Your task to perform on an android device: open the mobile data screen to see how much data has been used Image 0: 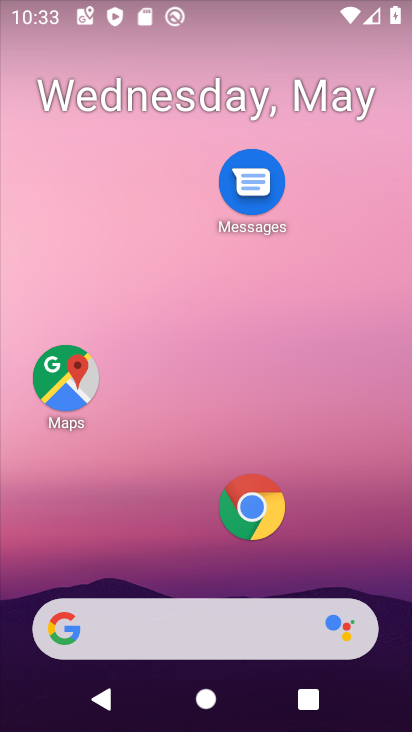
Step 0: press home button
Your task to perform on an android device: open the mobile data screen to see how much data has been used Image 1: 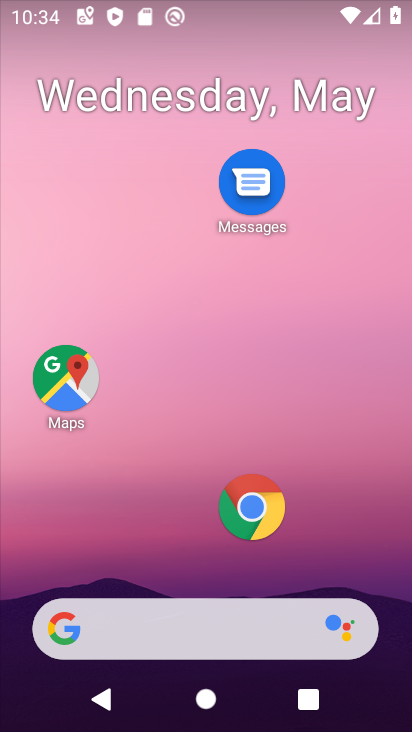
Step 1: drag from (202, 576) to (257, 27)
Your task to perform on an android device: open the mobile data screen to see how much data has been used Image 2: 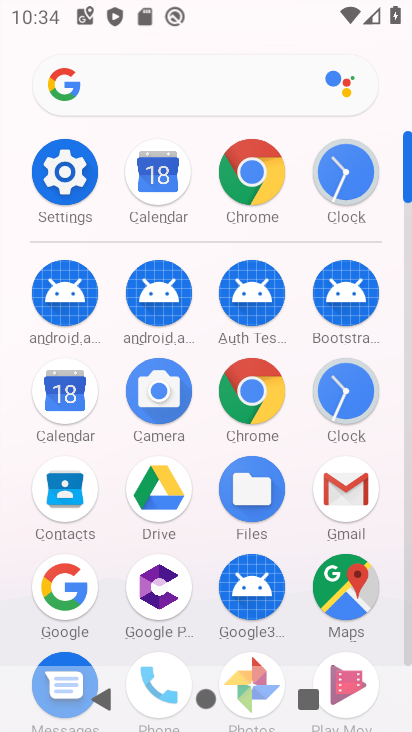
Step 2: click (56, 162)
Your task to perform on an android device: open the mobile data screen to see how much data has been used Image 3: 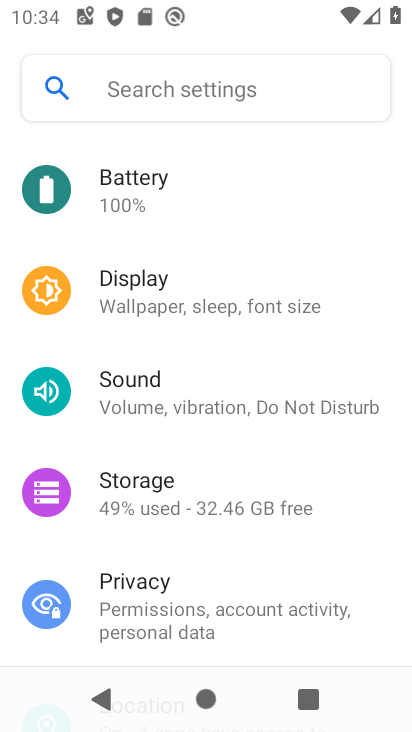
Step 3: drag from (186, 178) to (253, 446)
Your task to perform on an android device: open the mobile data screen to see how much data has been used Image 4: 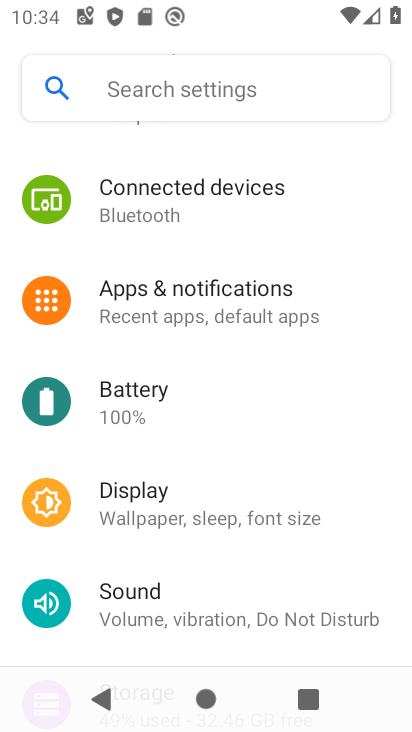
Step 4: drag from (228, 179) to (279, 541)
Your task to perform on an android device: open the mobile data screen to see how much data has been used Image 5: 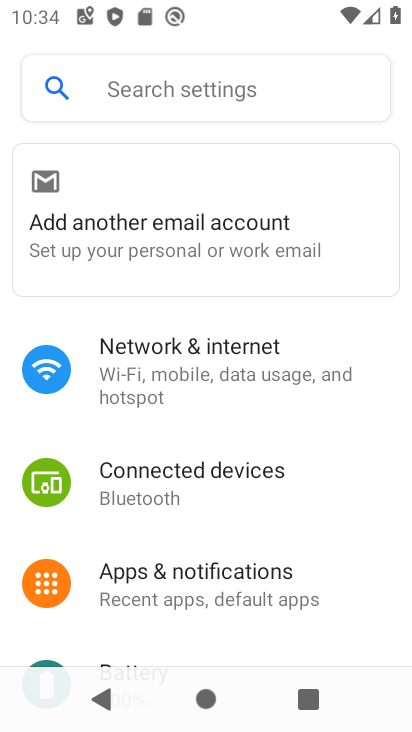
Step 5: click (220, 364)
Your task to perform on an android device: open the mobile data screen to see how much data has been used Image 6: 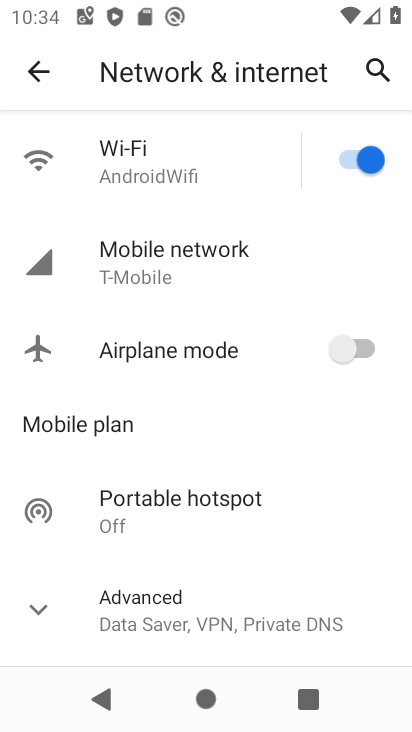
Step 6: click (209, 266)
Your task to perform on an android device: open the mobile data screen to see how much data has been used Image 7: 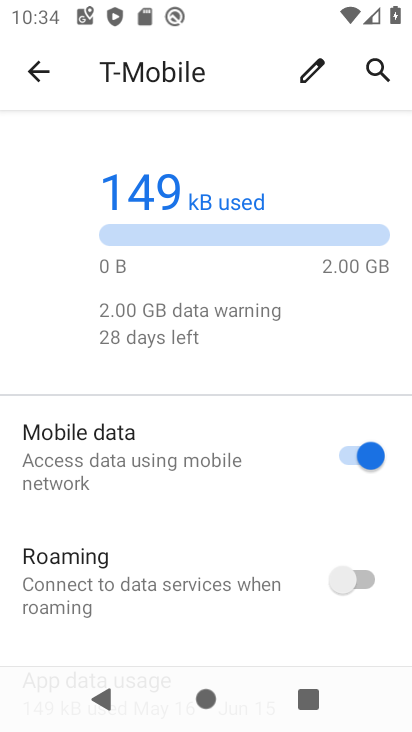
Step 7: drag from (148, 573) to (168, 292)
Your task to perform on an android device: open the mobile data screen to see how much data has been used Image 8: 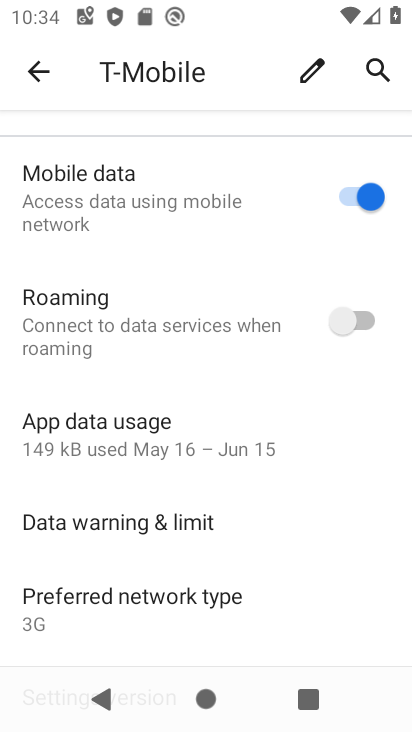
Step 8: click (192, 433)
Your task to perform on an android device: open the mobile data screen to see how much data has been used Image 9: 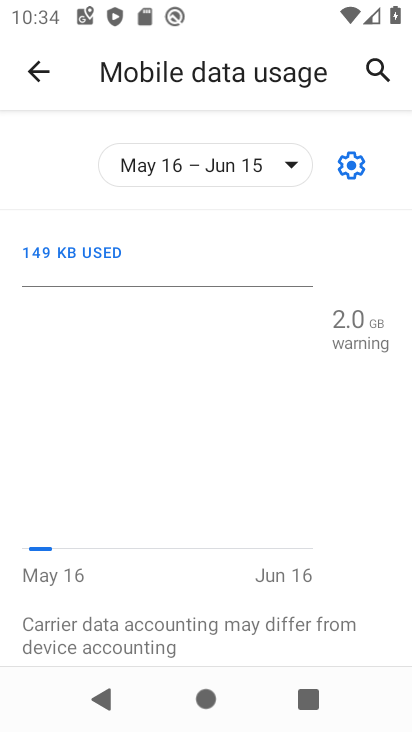
Step 9: task complete